Your task to perform on an android device: Go to accessibility settings Image 0: 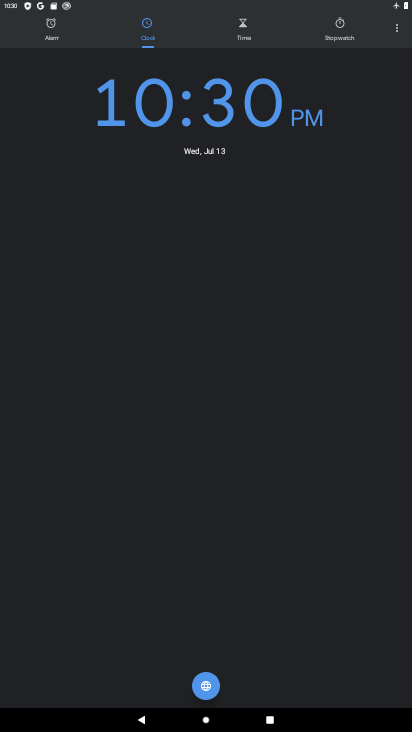
Step 0: drag from (271, 650) to (292, 135)
Your task to perform on an android device: Go to accessibility settings Image 1: 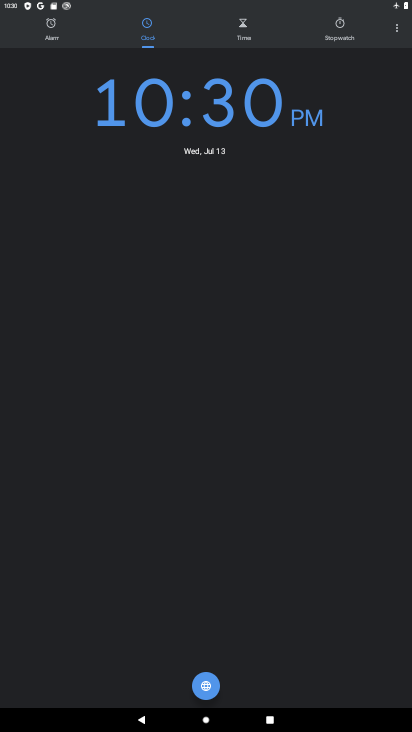
Step 1: press home button
Your task to perform on an android device: Go to accessibility settings Image 2: 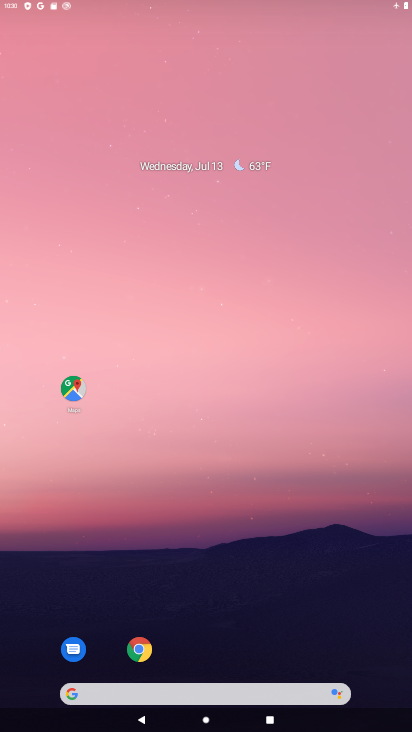
Step 2: drag from (172, 601) to (177, 190)
Your task to perform on an android device: Go to accessibility settings Image 3: 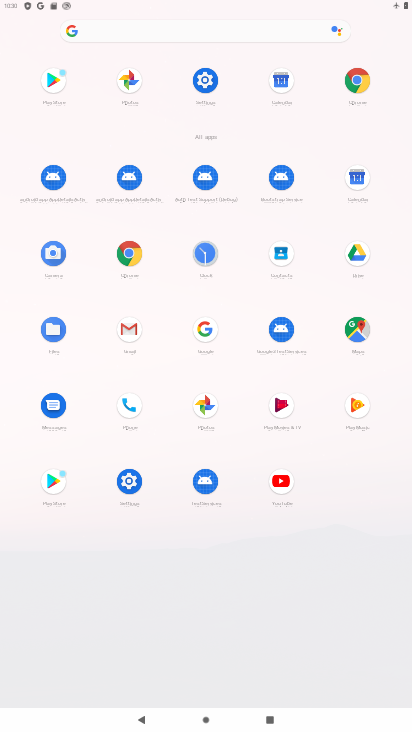
Step 3: click (205, 75)
Your task to perform on an android device: Go to accessibility settings Image 4: 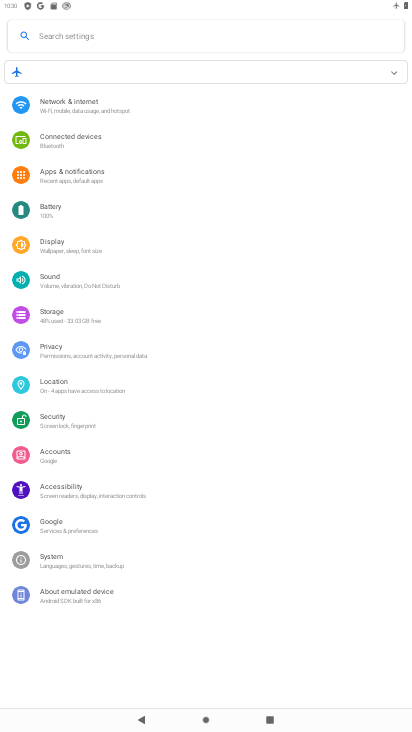
Step 4: click (99, 497)
Your task to perform on an android device: Go to accessibility settings Image 5: 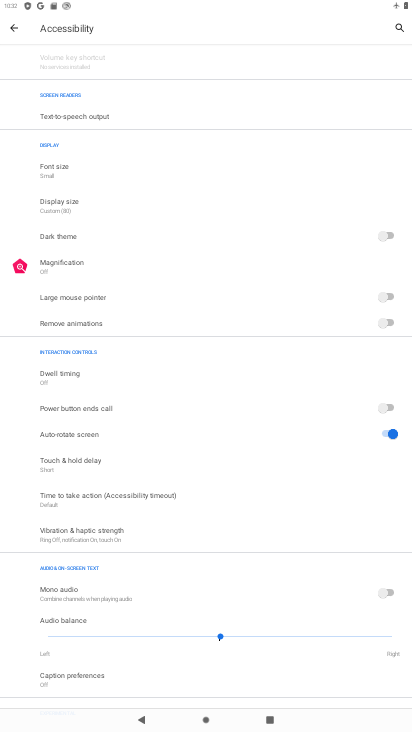
Step 5: task complete